Your task to perform on an android device: Open my contact list Image 0: 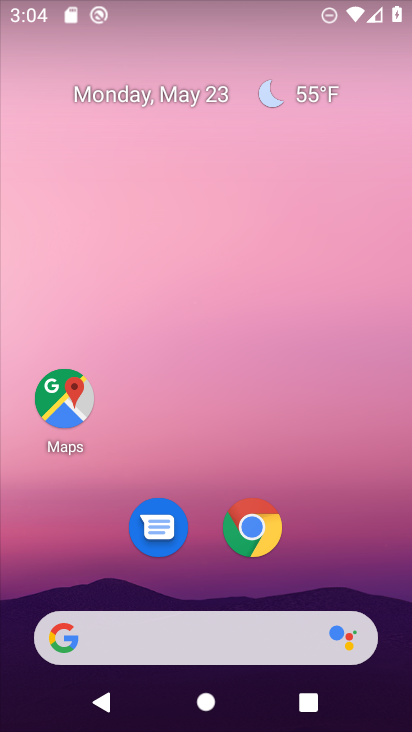
Step 0: drag from (211, 586) to (252, 49)
Your task to perform on an android device: Open my contact list Image 1: 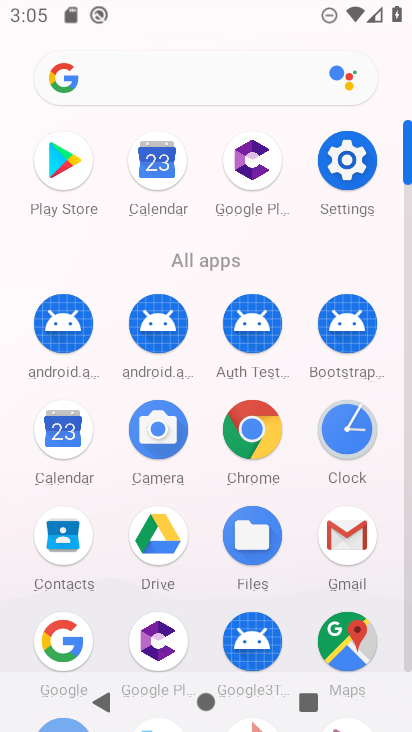
Step 1: click (56, 542)
Your task to perform on an android device: Open my contact list Image 2: 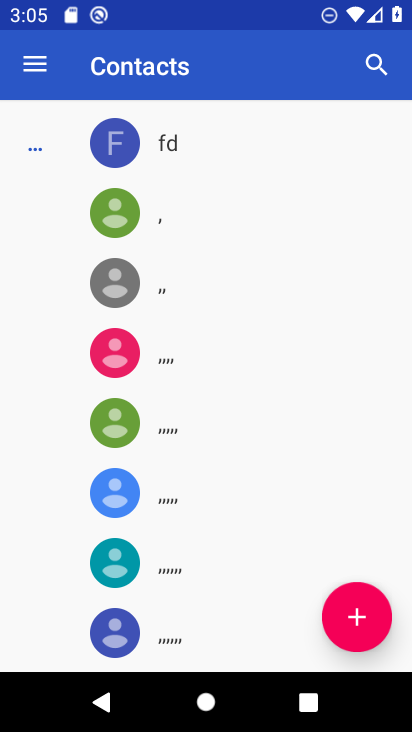
Step 2: task complete